Your task to perform on an android device: What's the weather today? Image 0: 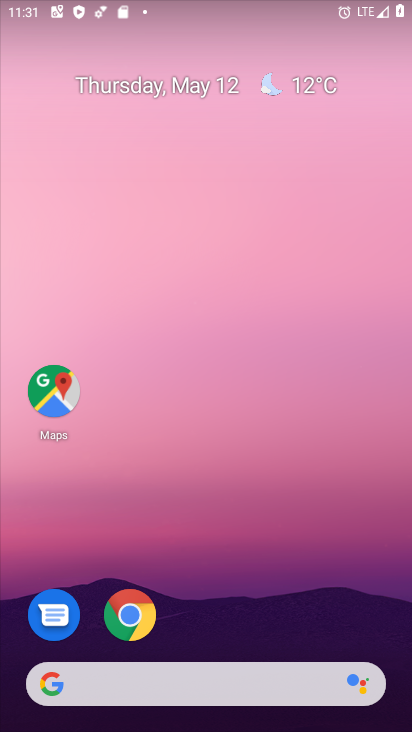
Step 0: click (320, 86)
Your task to perform on an android device: What's the weather today? Image 1: 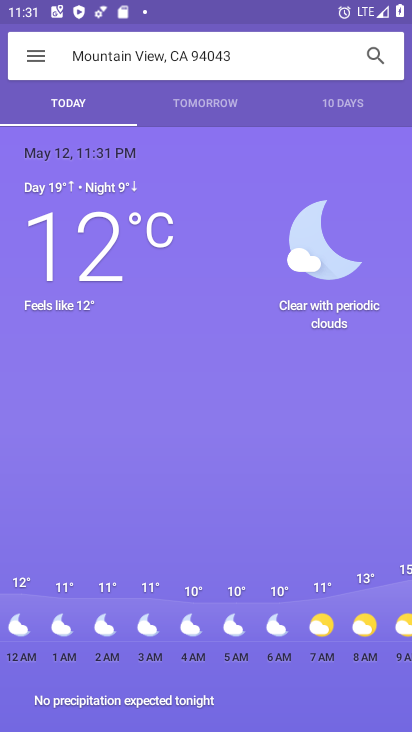
Step 1: task complete